Your task to perform on an android device: What is the news today? Image 0: 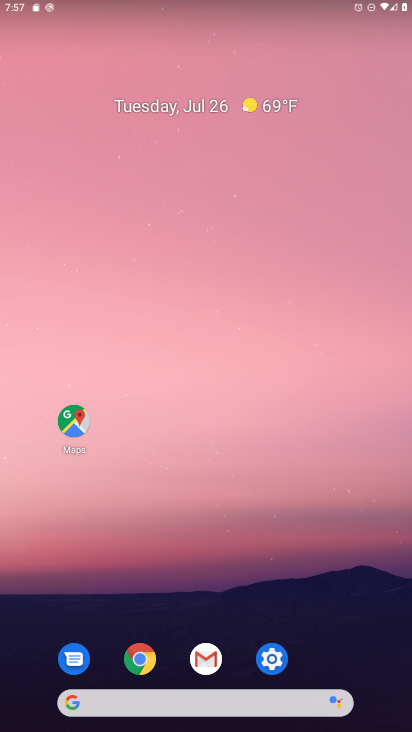
Step 0: click (205, 712)
Your task to perform on an android device: What is the news today? Image 1: 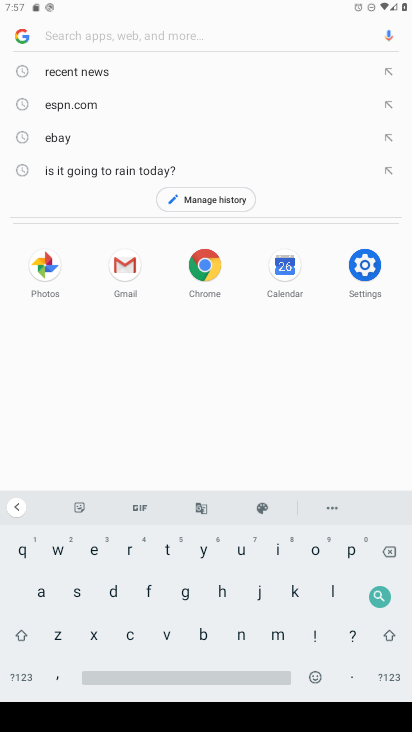
Step 1: click (240, 638)
Your task to perform on an android device: What is the news today? Image 2: 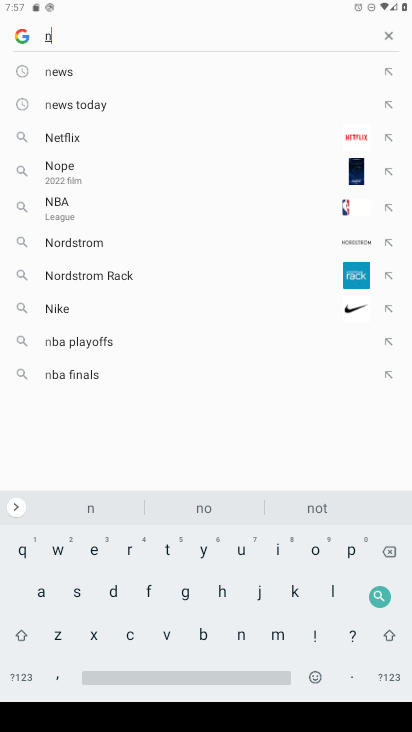
Step 2: click (93, 111)
Your task to perform on an android device: What is the news today? Image 3: 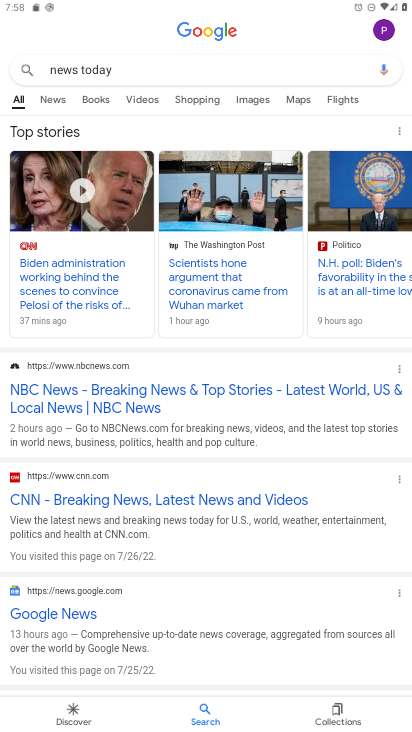
Step 3: task complete